Your task to perform on an android device: Go to privacy settings Image 0: 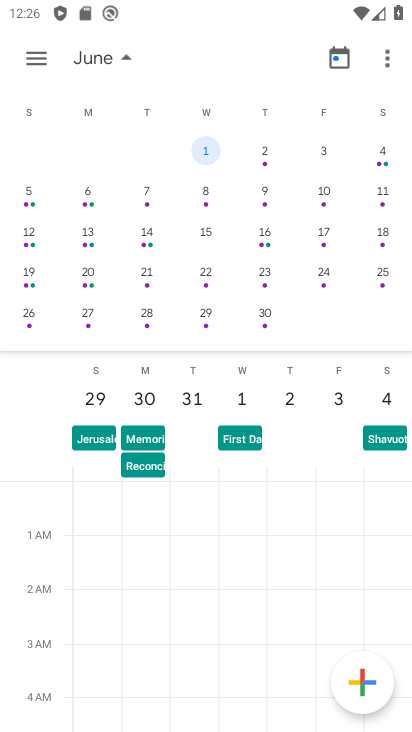
Step 0: press home button
Your task to perform on an android device: Go to privacy settings Image 1: 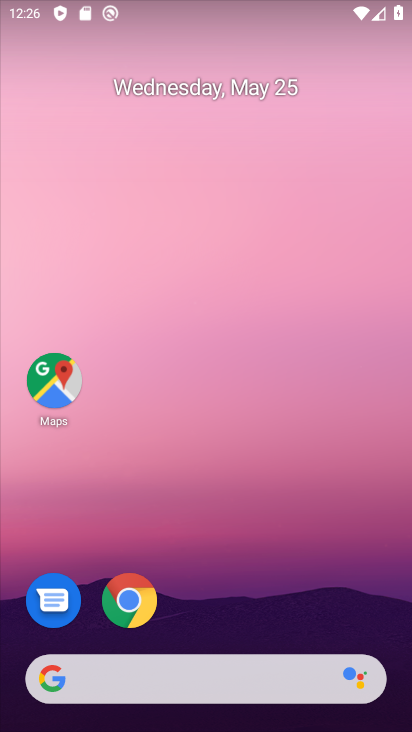
Step 1: drag from (246, 600) to (212, 146)
Your task to perform on an android device: Go to privacy settings Image 2: 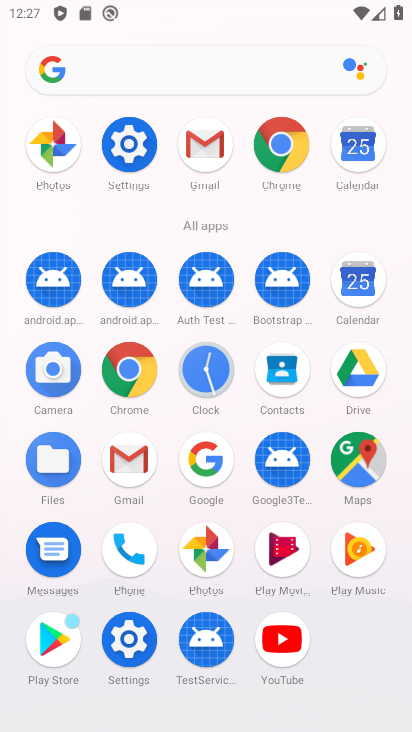
Step 2: click (136, 153)
Your task to perform on an android device: Go to privacy settings Image 3: 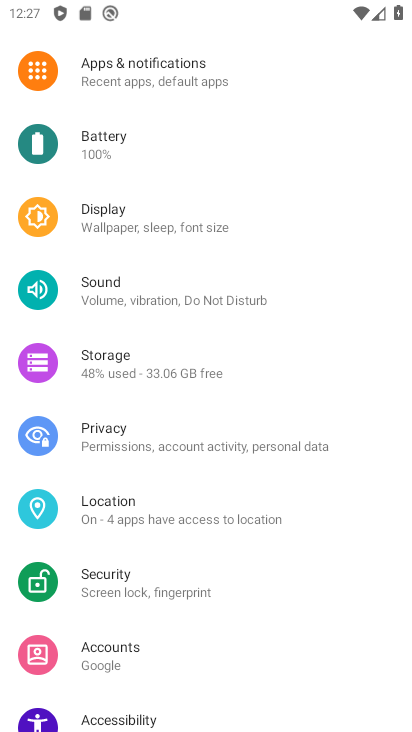
Step 3: click (130, 436)
Your task to perform on an android device: Go to privacy settings Image 4: 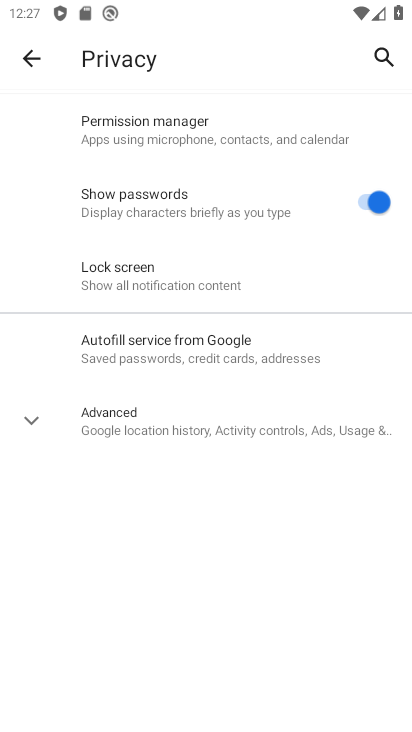
Step 4: task complete